Your task to perform on an android device: turn on wifi Image 0: 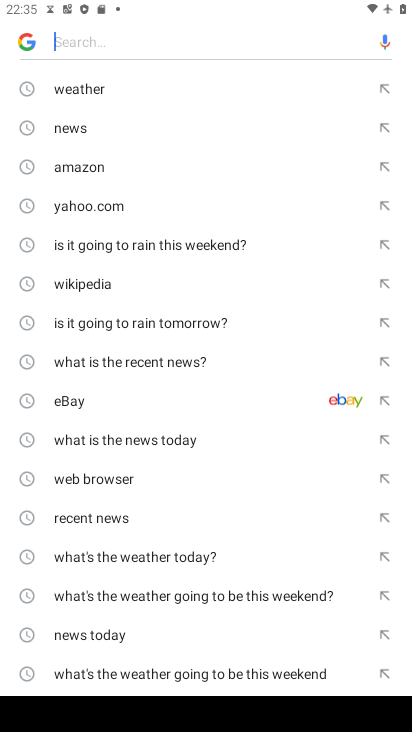
Step 0: press home button
Your task to perform on an android device: turn on wifi Image 1: 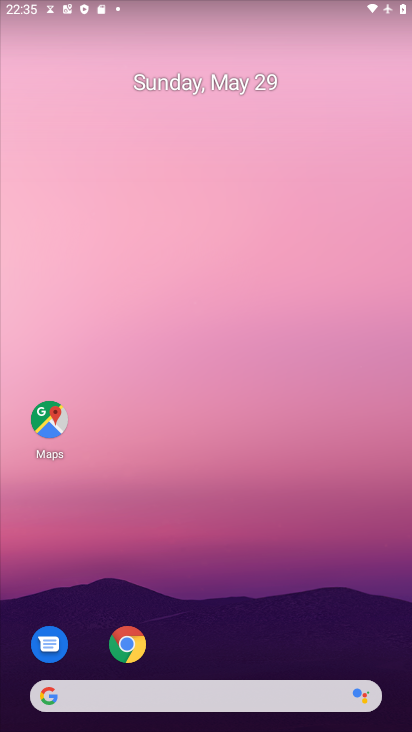
Step 1: drag from (242, 627) to (225, 284)
Your task to perform on an android device: turn on wifi Image 2: 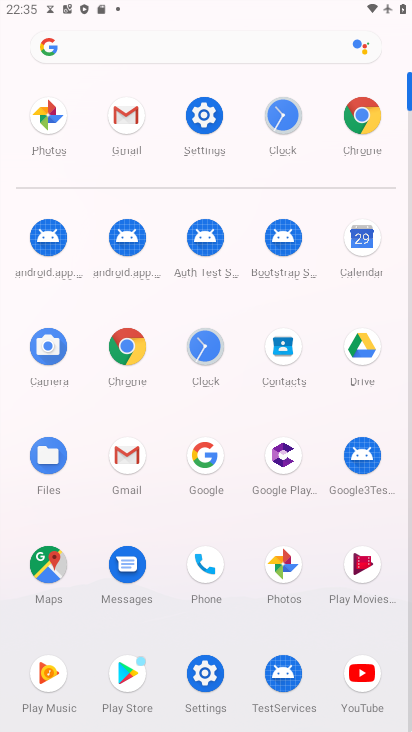
Step 2: click (196, 122)
Your task to perform on an android device: turn on wifi Image 3: 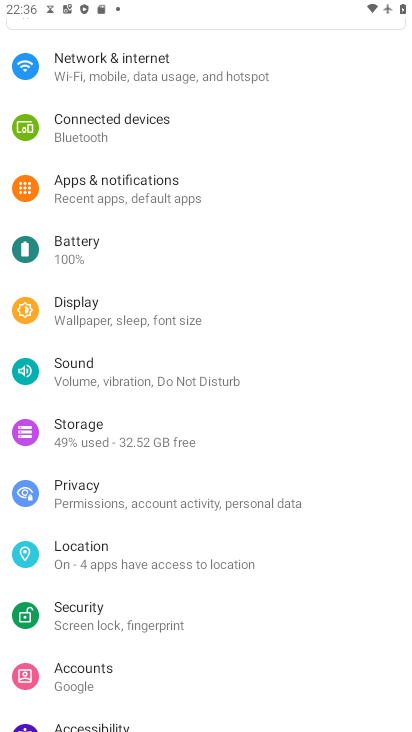
Step 3: click (153, 76)
Your task to perform on an android device: turn on wifi Image 4: 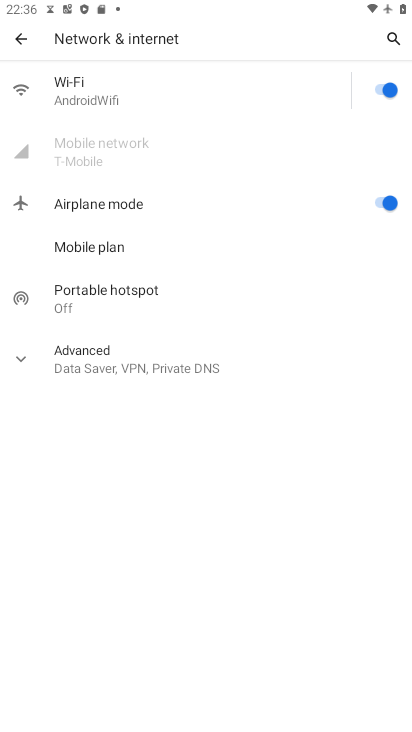
Step 4: click (179, 148)
Your task to perform on an android device: turn on wifi Image 5: 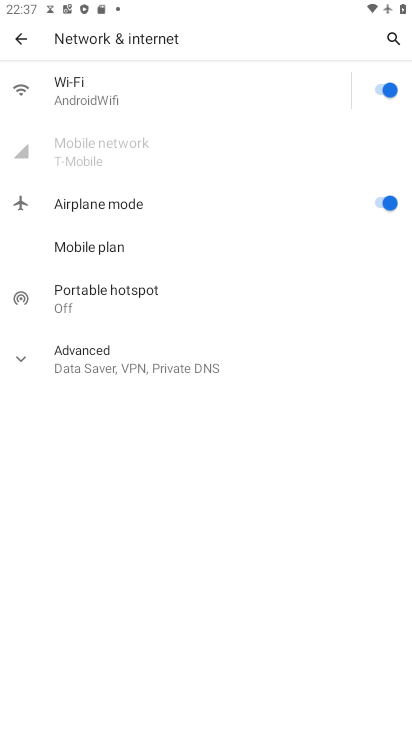
Step 5: task complete